Your task to perform on an android device: change alarm snooze length Image 0: 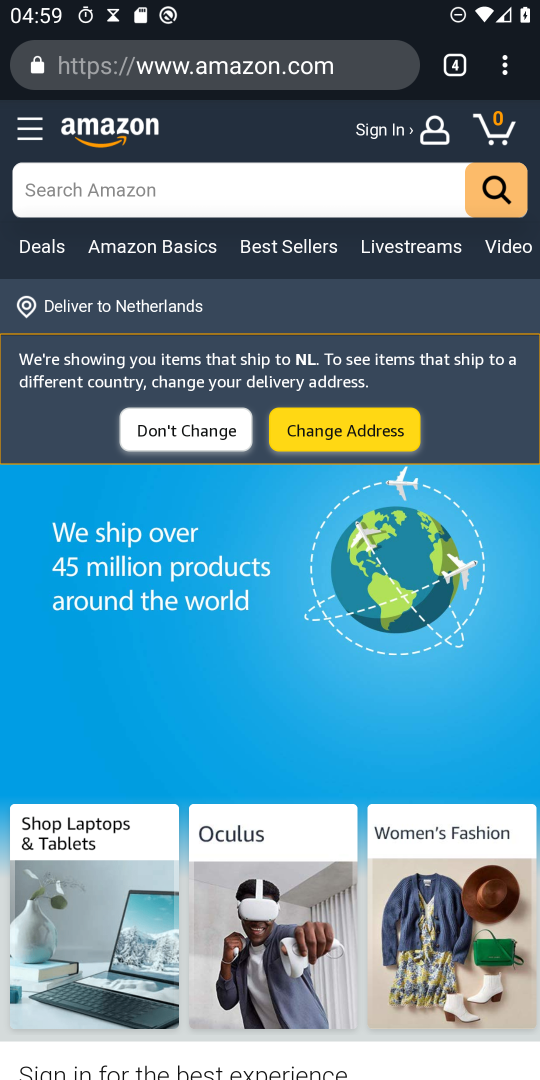
Step 0: press home button
Your task to perform on an android device: change alarm snooze length Image 1: 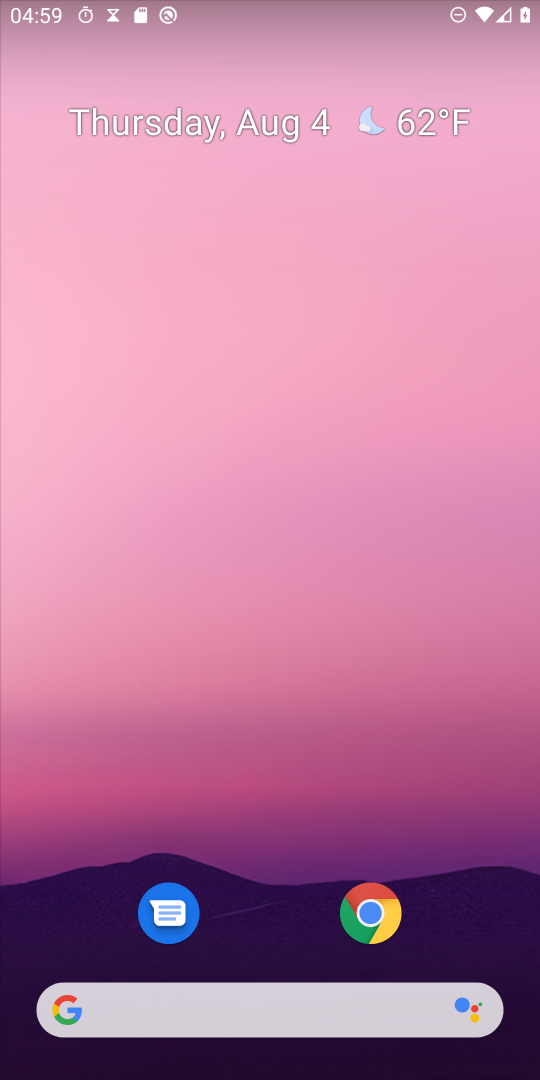
Step 1: drag from (379, 1019) to (392, 78)
Your task to perform on an android device: change alarm snooze length Image 2: 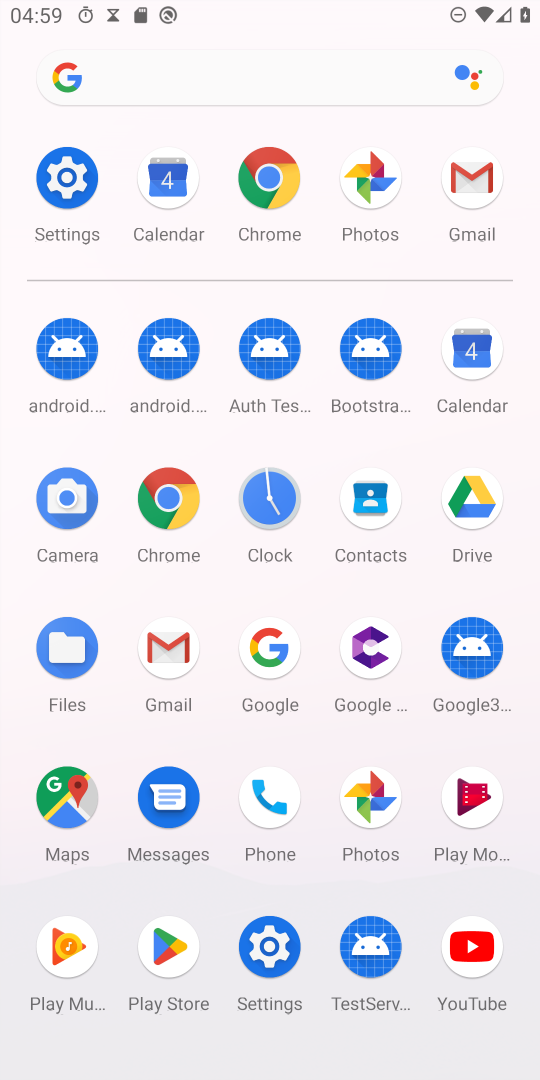
Step 2: click (477, 355)
Your task to perform on an android device: change alarm snooze length Image 3: 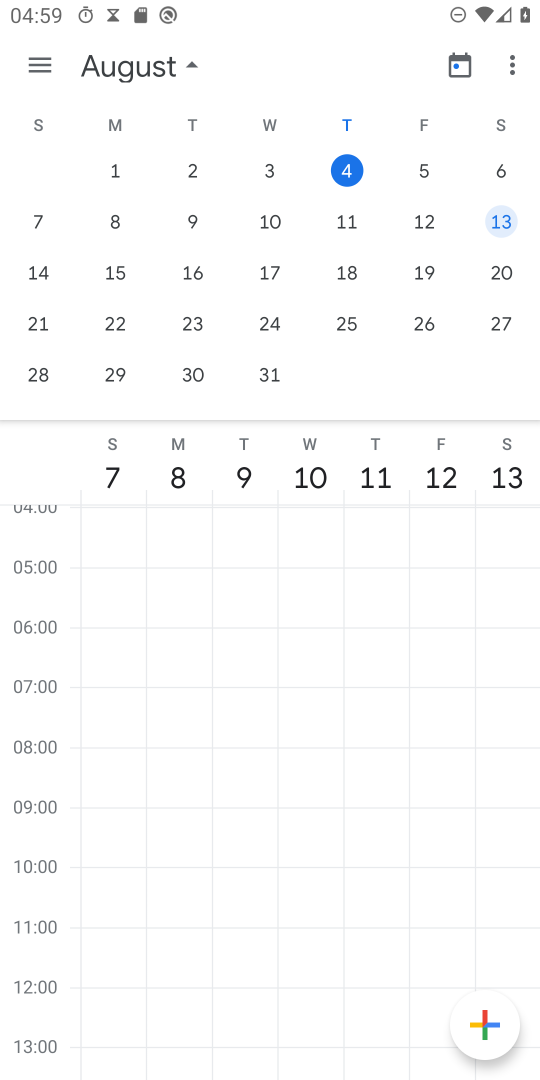
Step 3: press home button
Your task to perform on an android device: change alarm snooze length Image 4: 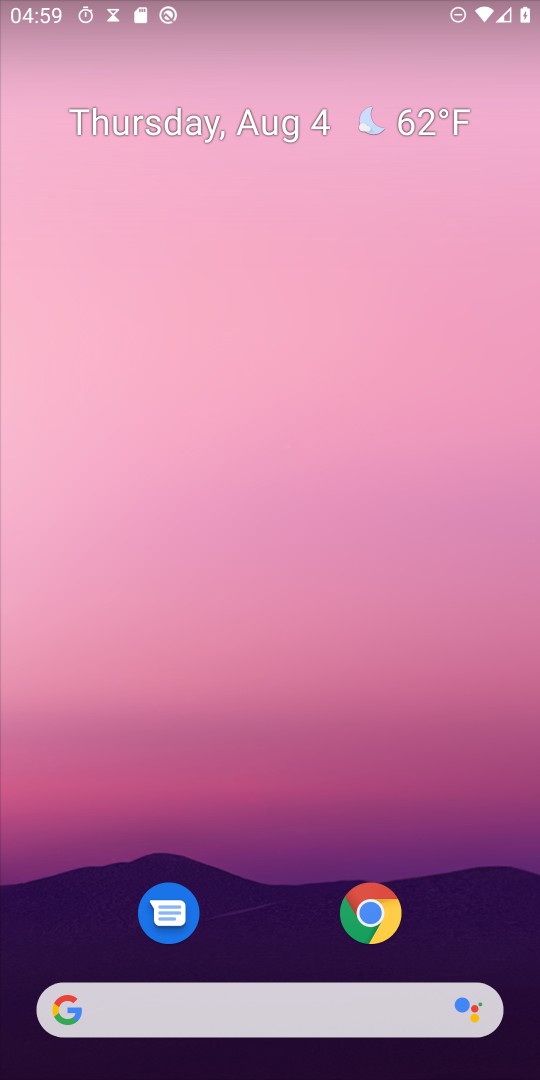
Step 4: drag from (266, 1007) to (290, 140)
Your task to perform on an android device: change alarm snooze length Image 5: 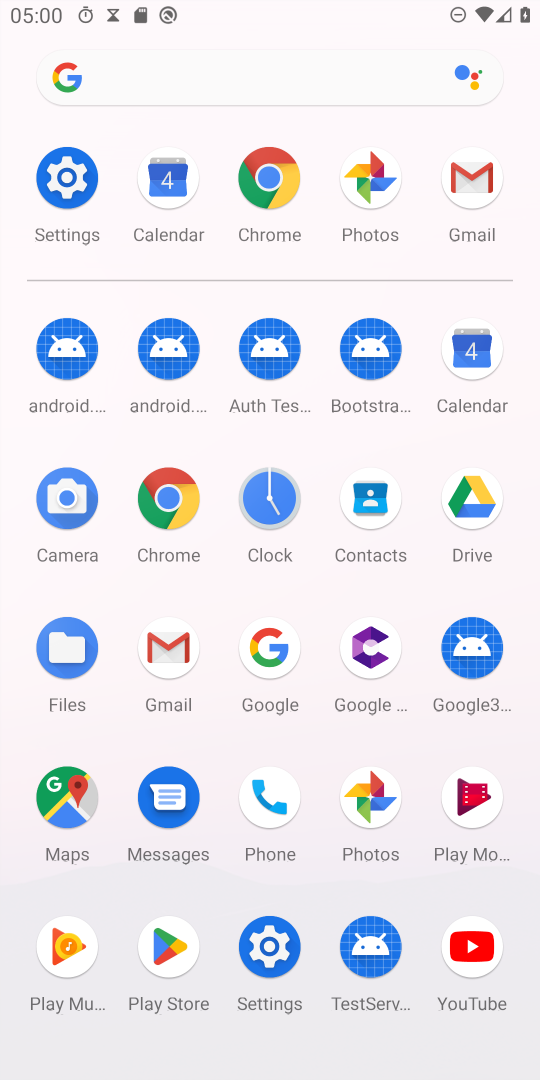
Step 5: click (264, 507)
Your task to perform on an android device: change alarm snooze length Image 6: 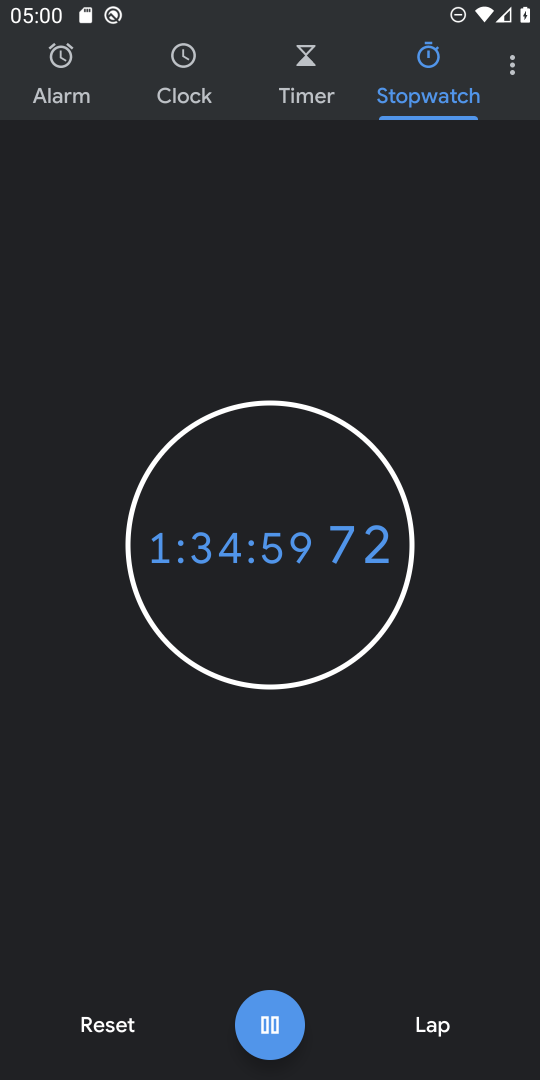
Step 6: drag from (512, 68) to (403, 138)
Your task to perform on an android device: change alarm snooze length Image 7: 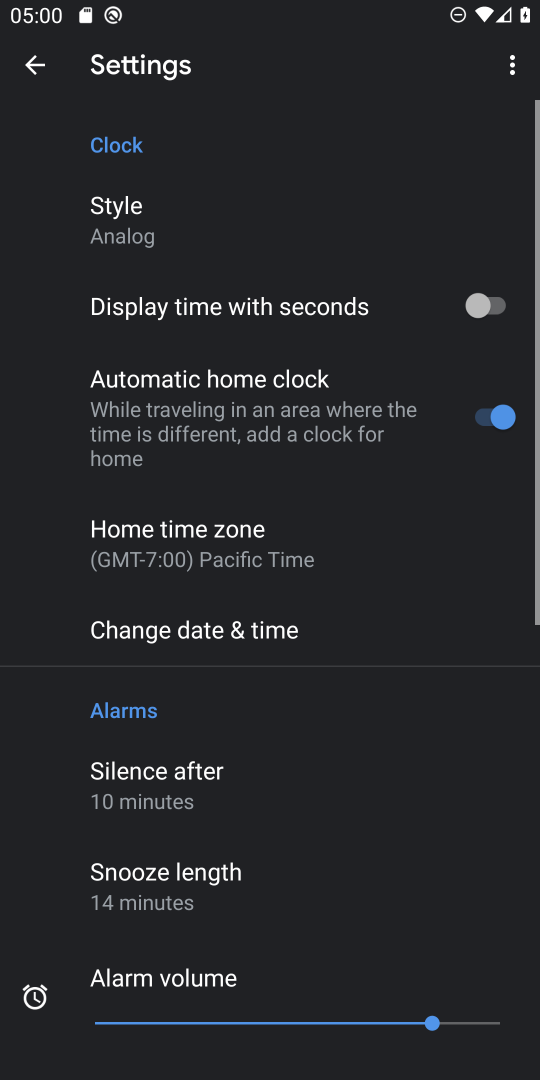
Step 7: click (293, 867)
Your task to perform on an android device: change alarm snooze length Image 8: 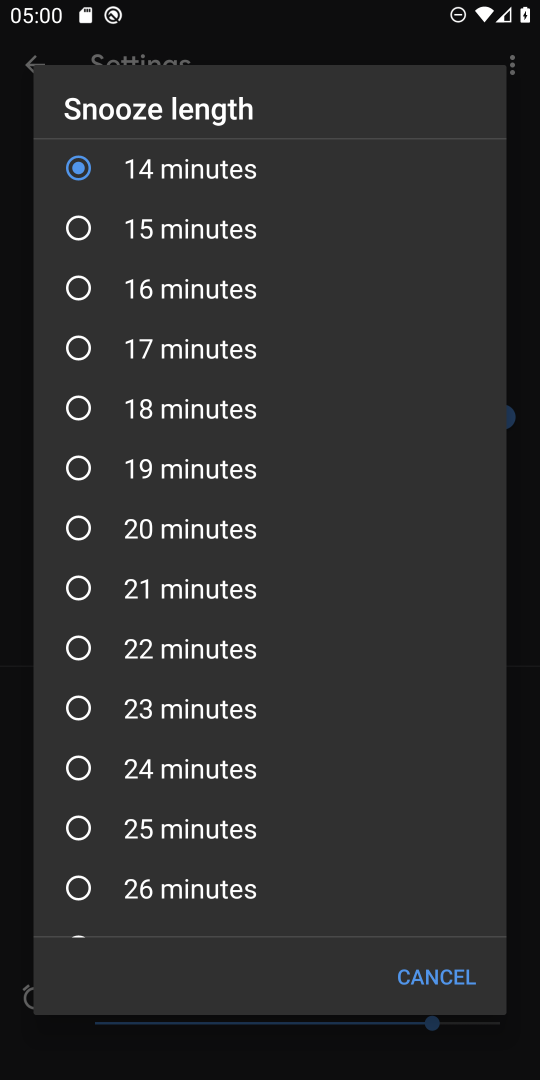
Step 8: click (91, 285)
Your task to perform on an android device: change alarm snooze length Image 9: 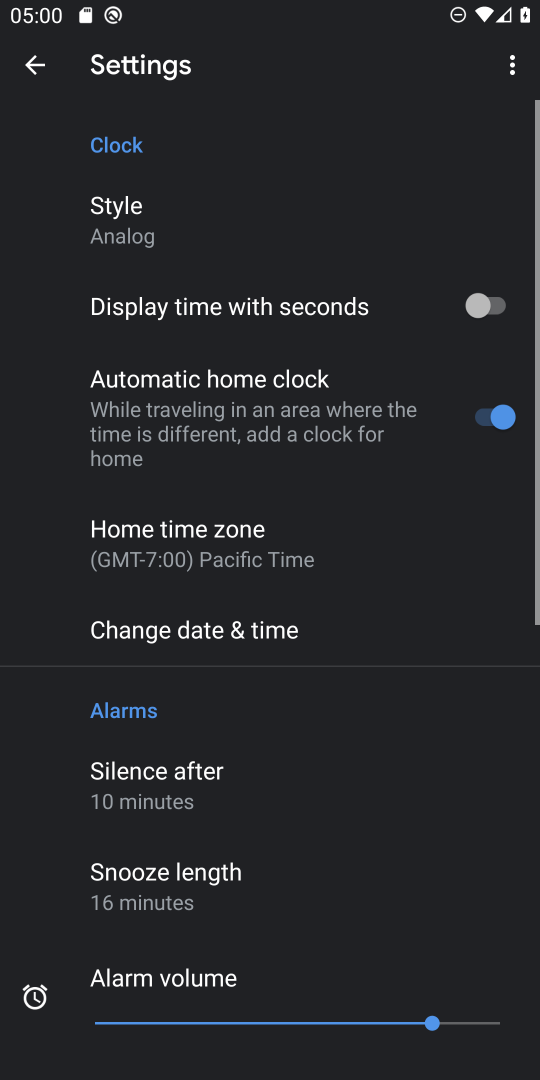
Step 9: task complete